Your task to perform on an android device: open a new tab in the chrome app Image 0: 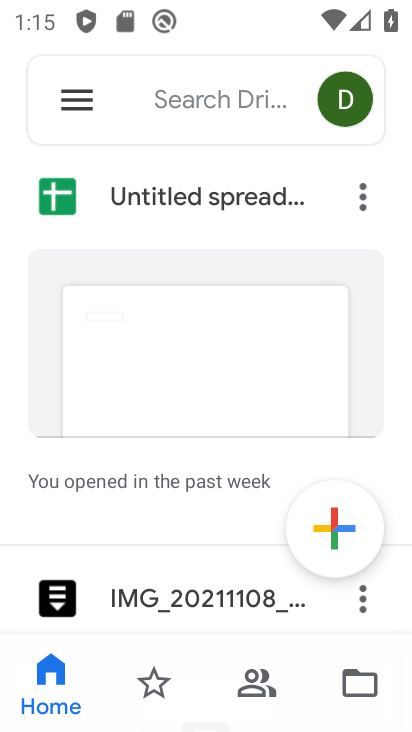
Step 0: press home button
Your task to perform on an android device: open a new tab in the chrome app Image 1: 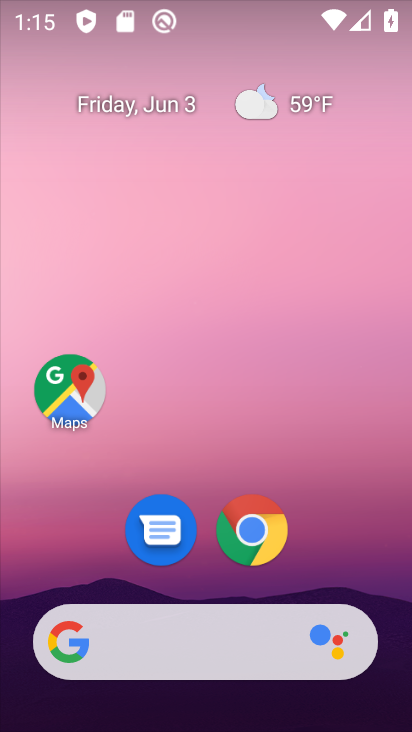
Step 1: click (246, 521)
Your task to perform on an android device: open a new tab in the chrome app Image 2: 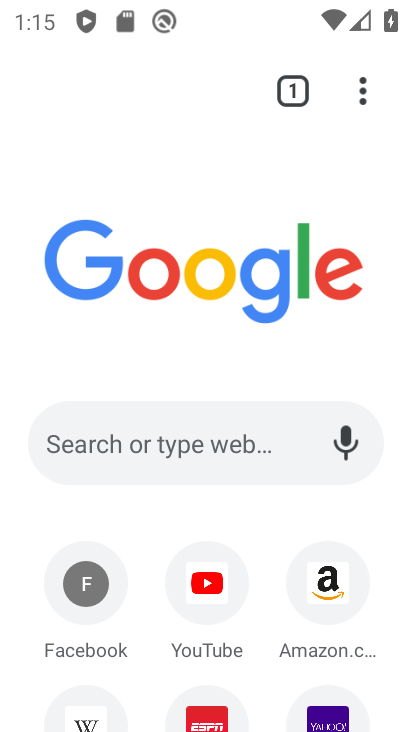
Step 2: click (360, 89)
Your task to perform on an android device: open a new tab in the chrome app Image 3: 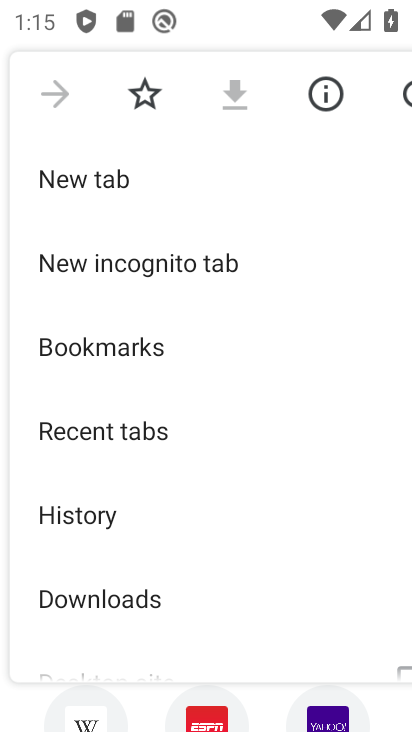
Step 3: click (81, 180)
Your task to perform on an android device: open a new tab in the chrome app Image 4: 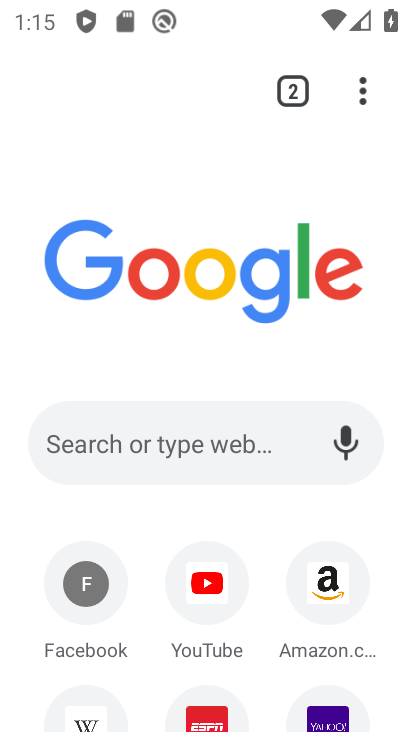
Step 4: task complete